Your task to perform on an android device: Show the shopping cart on costco. Search for macbook pro on costco, select the first entry, and add it to the cart. Image 0: 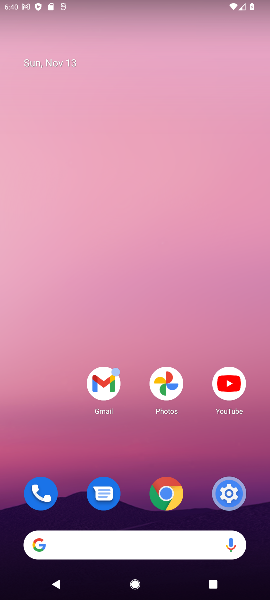
Step 0: click (140, 541)
Your task to perform on an android device: Show the shopping cart on costco. Search for macbook pro on costco, select the first entry, and add it to the cart. Image 1: 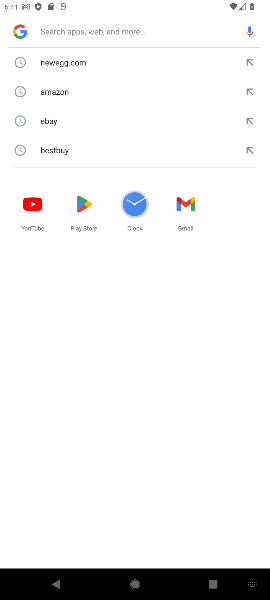
Step 1: type "costco"
Your task to perform on an android device: Show the shopping cart on costco. Search for macbook pro on costco, select the first entry, and add it to the cart. Image 2: 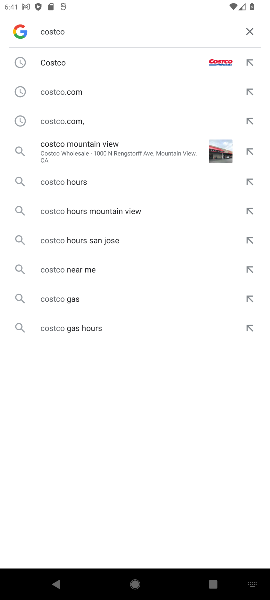
Step 2: click (173, 62)
Your task to perform on an android device: Show the shopping cart on costco. Search for macbook pro on costco, select the first entry, and add it to the cart. Image 3: 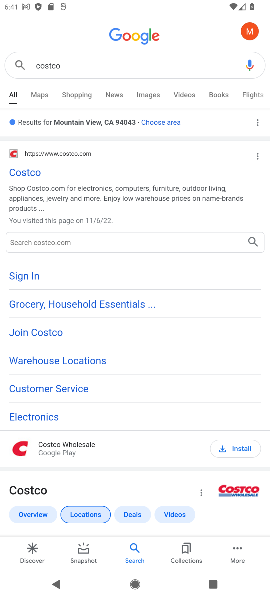
Step 3: click (19, 171)
Your task to perform on an android device: Show the shopping cart on costco. Search for macbook pro on costco, select the first entry, and add it to the cart. Image 4: 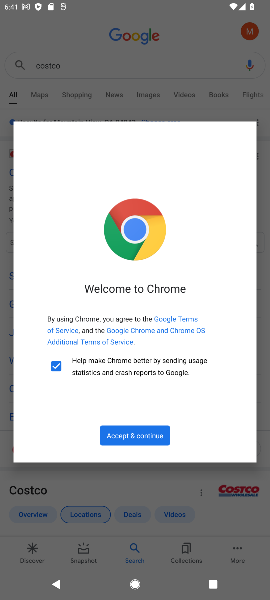
Step 4: click (140, 429)
Your task to perform on an android device: Show the shopping cart on costco. Search for macbook pro on costco, select the first entry, and add it to the cart. Image 5: 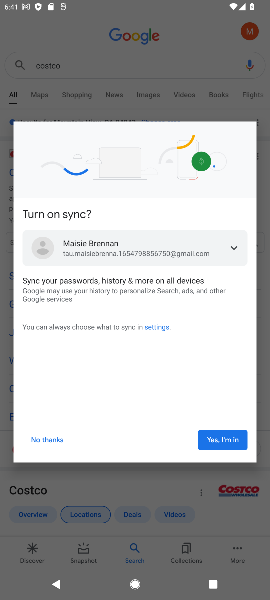
Step 5: click (209, 435)
Your task to perform on an android device: Show the shopping cart on costco. Search for macbook pro on costco, select the first entry, and add it to the cart. Image 6: 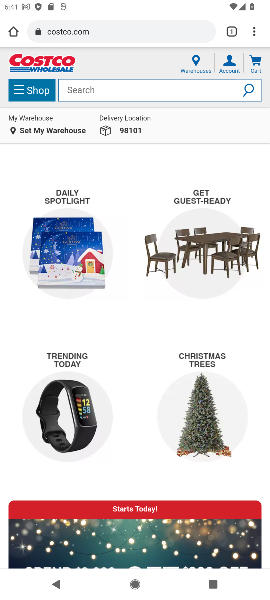
Step 6: click (92, 95)
Your task to perform on an android device: Show the shopping cart on costco. Search for macbook pro on costco, select the first entry, and add it to the cart. Image 7: 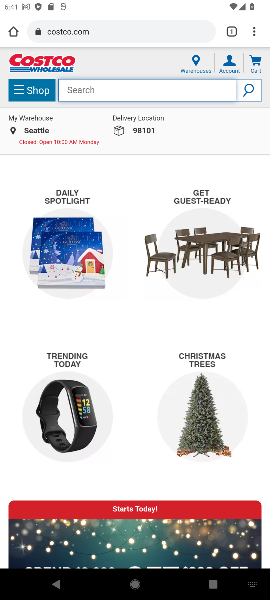
Step 7: type "macbook pro"
Your task to perform on an android device: Show the shopping cart on costco. Search for macbook pro on costco, select the first entry, and add it to the cart. Image 8: 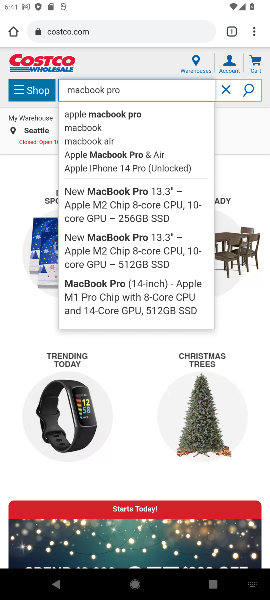
Step 8: click (248, 83)
Your task to perform on an android device: Show the shopping cart on costco. Search for macbook pro on costco, select the first entry, and add it to the cart. Image 9: 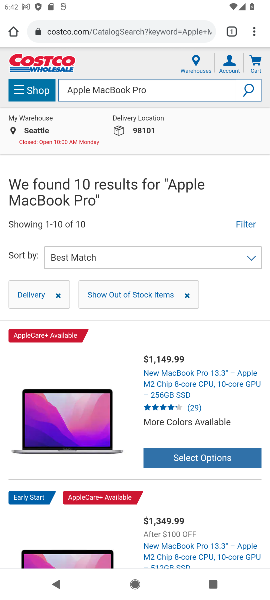
Step 9: click (214, 454)
Your task to perform on an android device: Show the shopping cart on costco. Search for macbook pro on costco, select the first entry, and add it to the cart. Image 10: 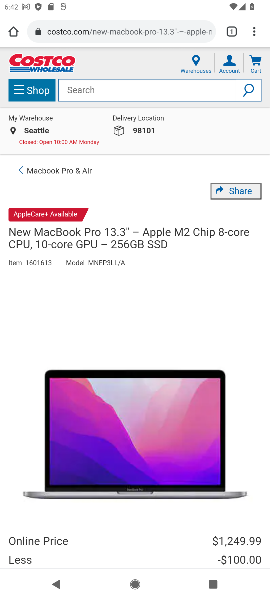
Step 10: drag from (163, 365) to (164, 222)
Your task to perform on an android device: Show the shopping cart on costco. Search for macbook pro on costco, select the first entry, and add it to the cart. Image 11: 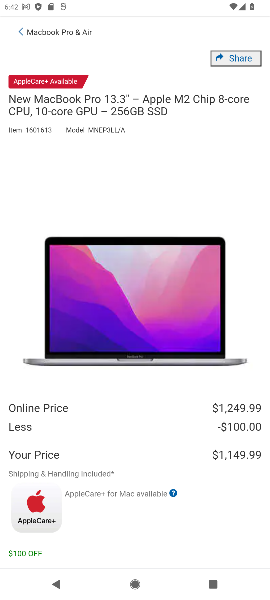
Step 11: drag from (115, 393) to (125, 263)
Your task to perform on an android device: Show the shopping cart on costco. Search for macbook pro on costco, select the first entry, and add it to the cart. Image 12: 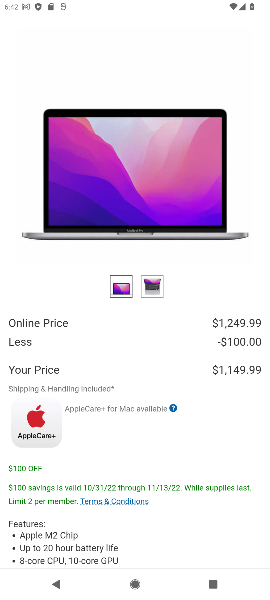
Step 12: drag from (120, 455) to (144, 277)
Your task to perform on an android device: Show the shopping cart on costco. Search for macbook pro on costco, select the first entry, and add it to the cart. Image 13: 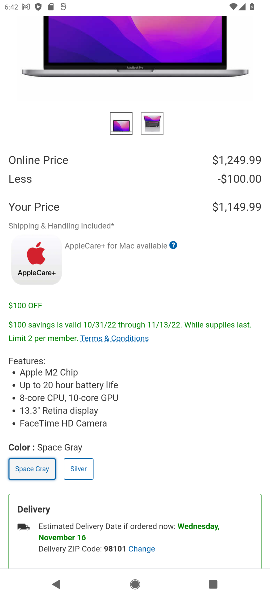
Step 13: drag from (163, 468) to (163, 270)
Your task to perform on an android device: Show the shopping cart on costco. Search for macbook pro on costco, select the first entry, and add it to the cart. Image 14: 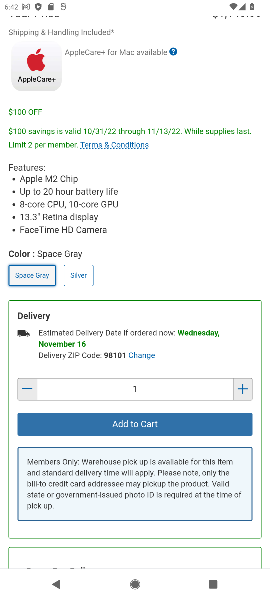
Step 14: click (131, 422)
Your task to perform on an android device: Show the shopping cart on costco. Search for macbook pro on costco, select the first entry, and add it to the cart. Image 15: 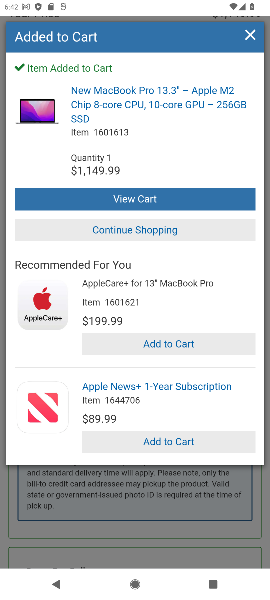
Step 15: task complete